Your task to perform on an android device: change notifications settings Image 0: 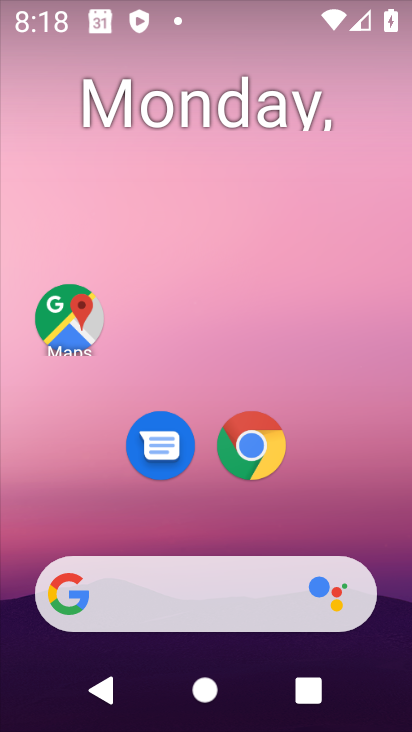
Step 0: drag from (209, 526) to (199, 136)
Your task to perform on an android device: change notifications settings Image 1: 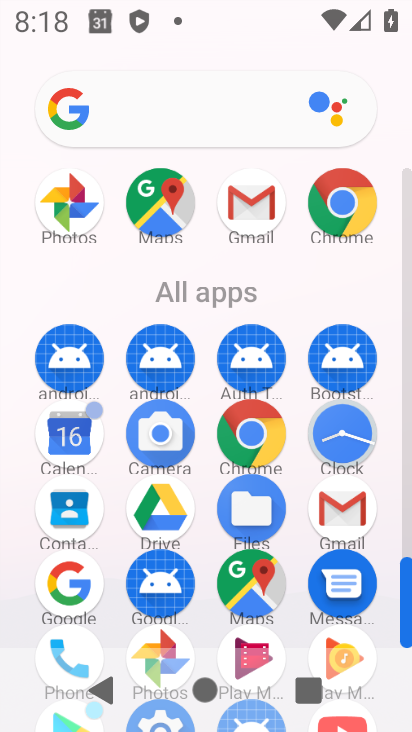
Step 1: drag from (199, 622) to (196, 126)
Your task to perform on an android device: change notifications settings Image 2: 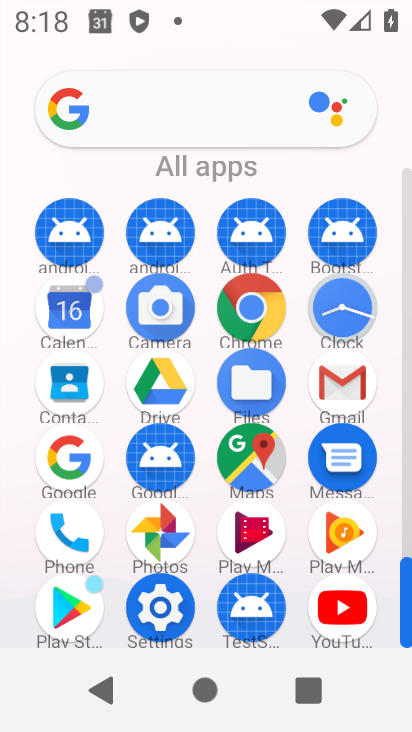
Step 2: click (157, 595)
Your task to perform on an android device: change notifications settings Image 3: 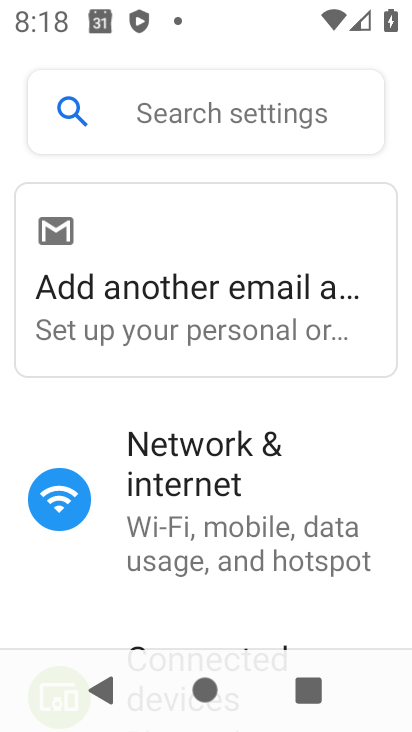
Step 3: drag from (177, 598) to (190, 36)
Your task to perform on an android device: change notifications settings Image 4: 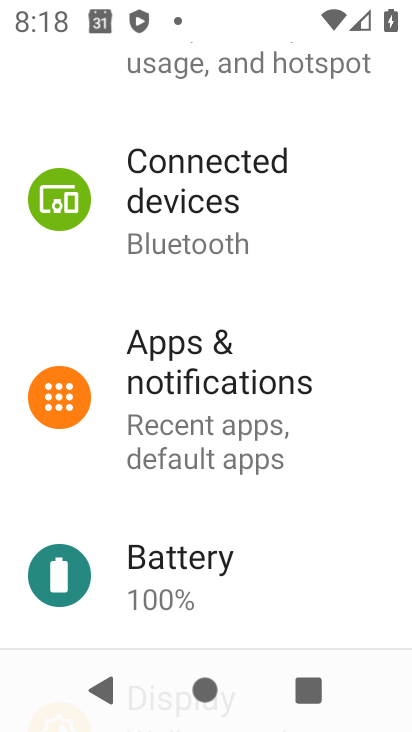
Step 4: click (110, 348)
Your task to perform on an android device: change notifications settings Image 5: 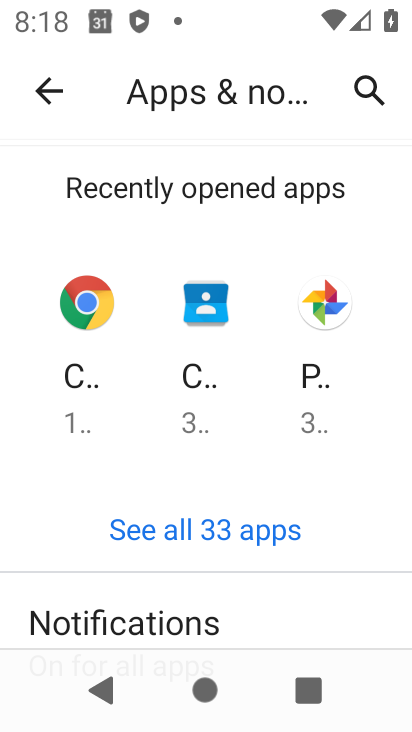
Step 5: click (219, 613)
Your task to perform on an android device: change notifications settings Image 6: 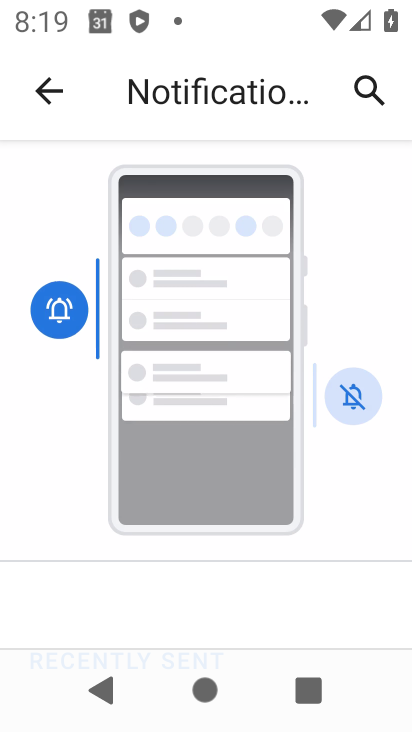
Step 6: drag from (201, 627) to (202, 99)
Your task to perform on an android device: change notifications settings Image 7: 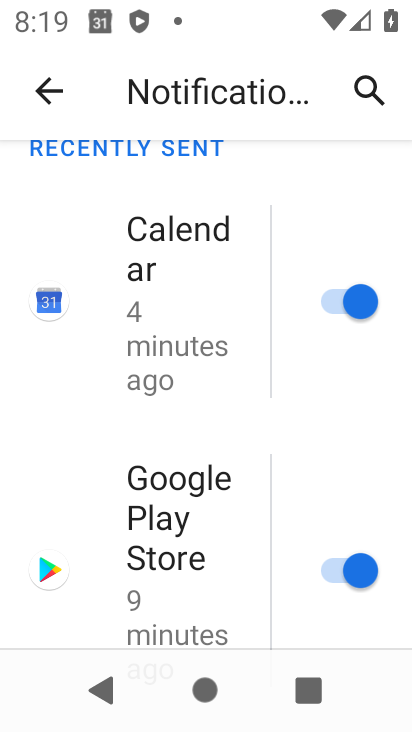
Step 7: drag from (244, 596) to (240, 111)
Your task to perform on an android device: change notifications settings Image 8: 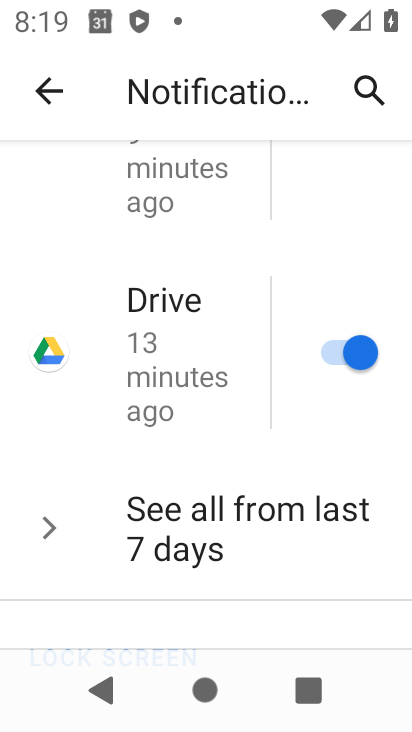
Step 8: drag from (236, 578) to (244, 111)
Your task to perform on an android device: change notifications settings Image 9: 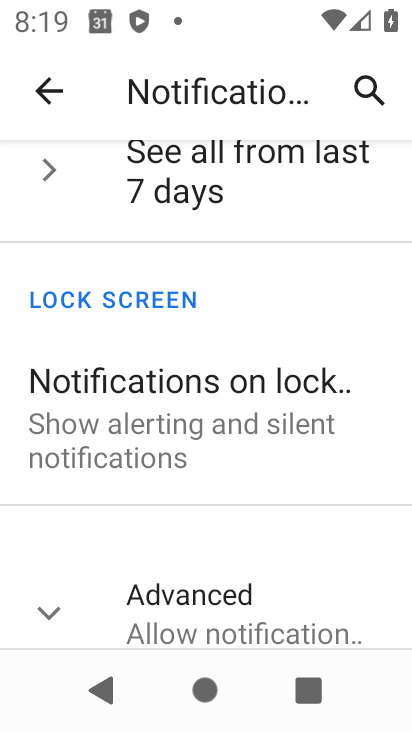
Step 9: drag from (108, 233) to (197, 687)
Your task to perform on an android device: change notifications settings Image 10: 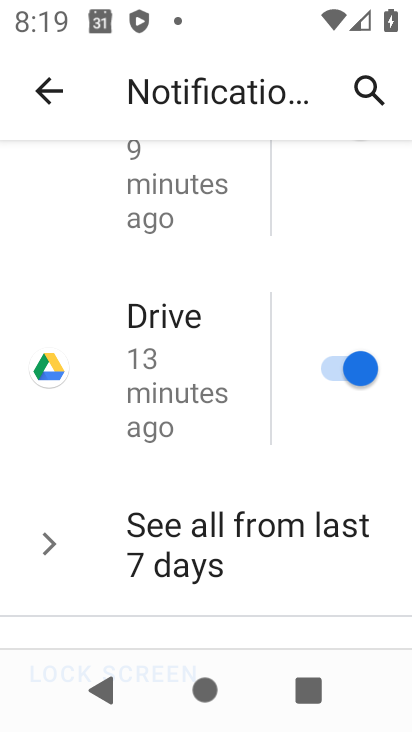
Step 10: drag from (204, 256) to (277, 593)
Your task to perform on an android device: change notifications settings Image 11: 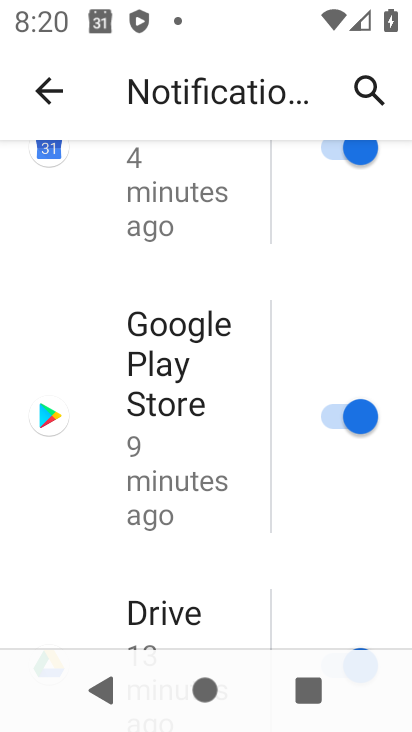
Step 11: click (342, 146)
Your task to perform on an android device: change notifications settings Image 12: 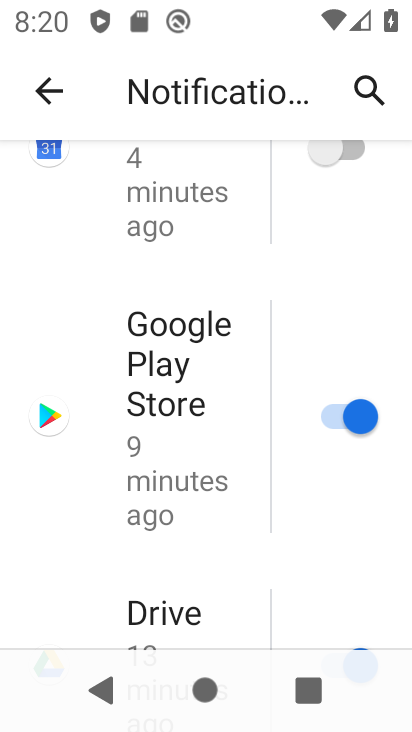
Step 12: click (333, 404)
Your task to perform on an android device: change notifications settings Image 13: 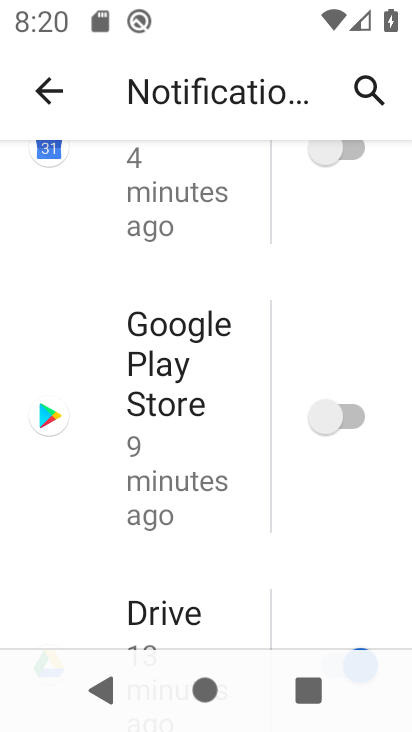
Step 13: drag from (225, 550) to (238, 114)
Your task to perform on an android device: change notifications settings Image 14: 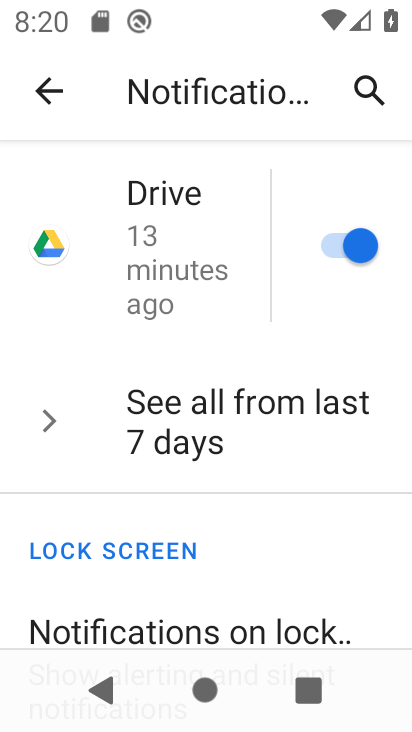
Step 14: click (336, 237)
Your task to perform on an android device: change notifications settings Image 15: 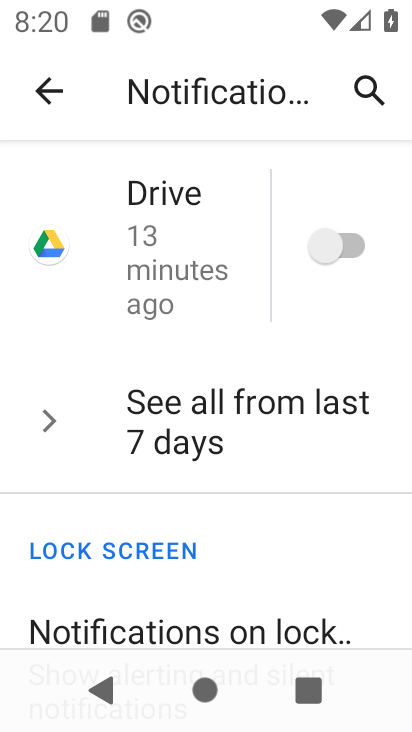
Step 15: drag from (227, 545) to (232, 172)
Your task to perform on an android device: change notifications settings Image 16: 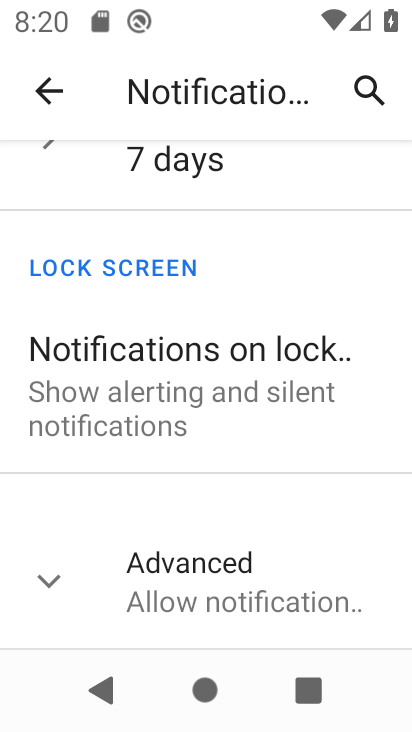
Step 16: click (79, 582)
Your task to perform on an android device: change notifications settings Image 17: 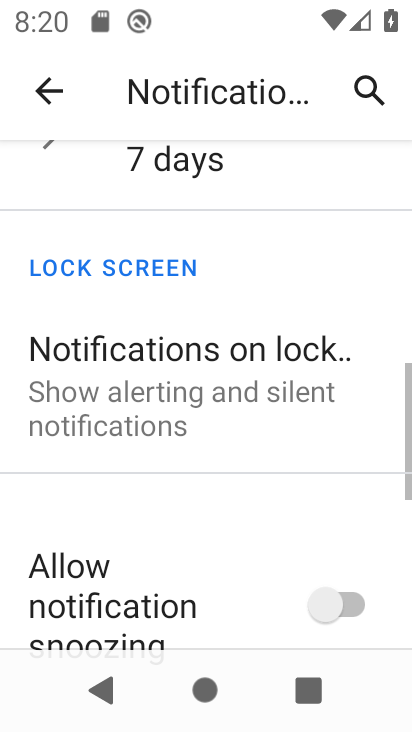
Step 17: task complete